Your task to perform on an android device: Go to accessibility settings Image 0: 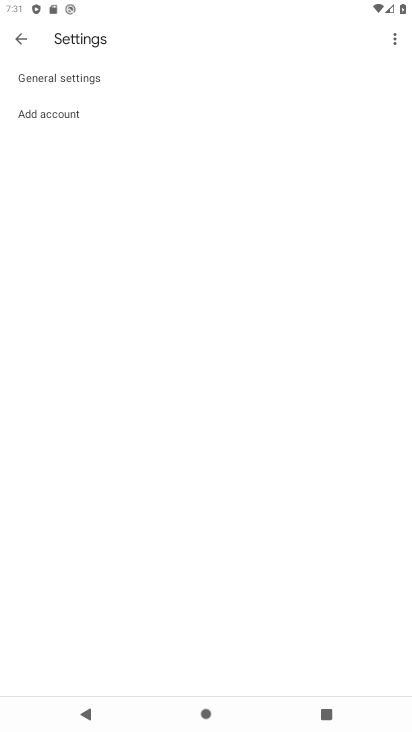
Step 0: press home button
Your task to perform on an android device: Go to accessibility settings Image 1: 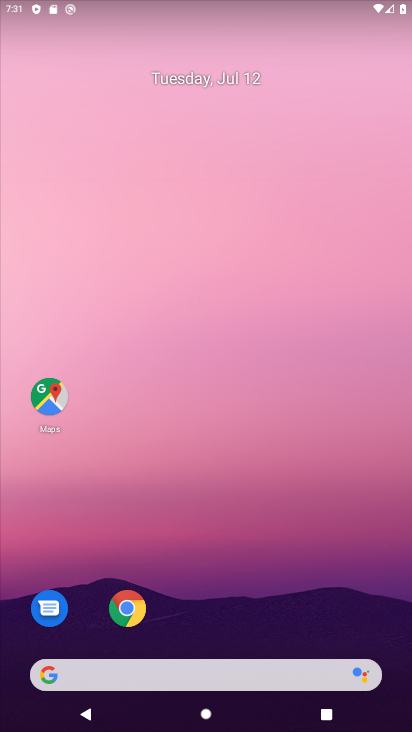
Step 1: drag from (300, 684) to (243, 154)
Your task to perform on an android device: Go to accessibility settings Image 2: 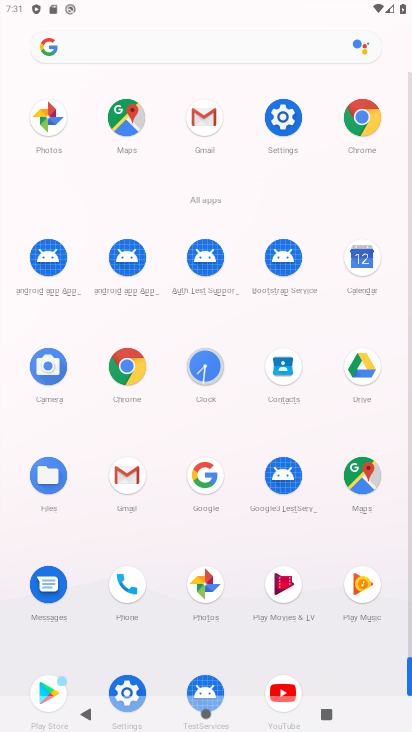
Step 2: click (271, 110)
Your task to perform on an android device: Go to accessibility settings Image 3: 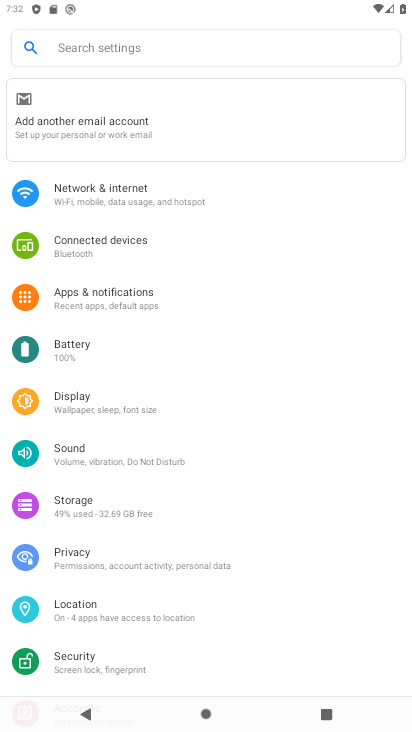
Step 3: drag from (191, 604) to (190, 242)
Your task to perform on an android device: Go to accessibility settings Image 4: 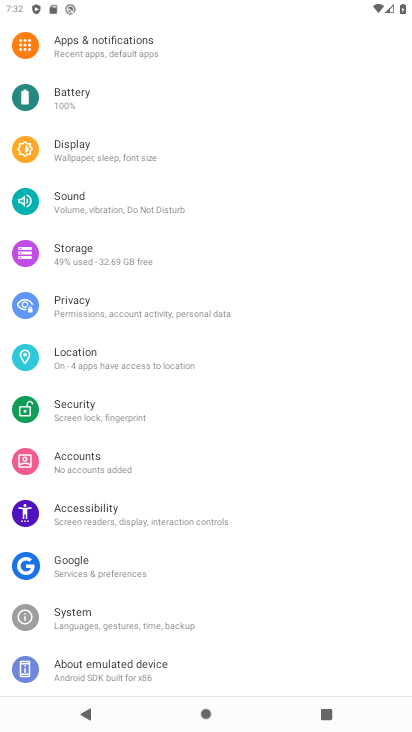
Step 4: click (115, 512)
Your task to perform on an android device: Go to accessibility settings Image 5: 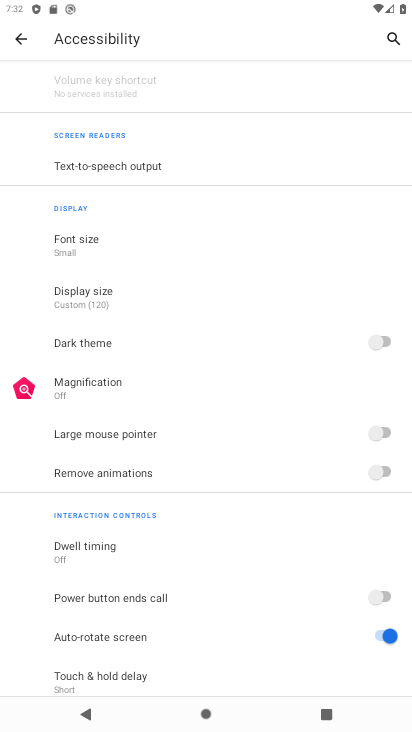
Step 5: task complete